Your task to perform on an android device: turn on showing notifications on the lock screen Image 0: 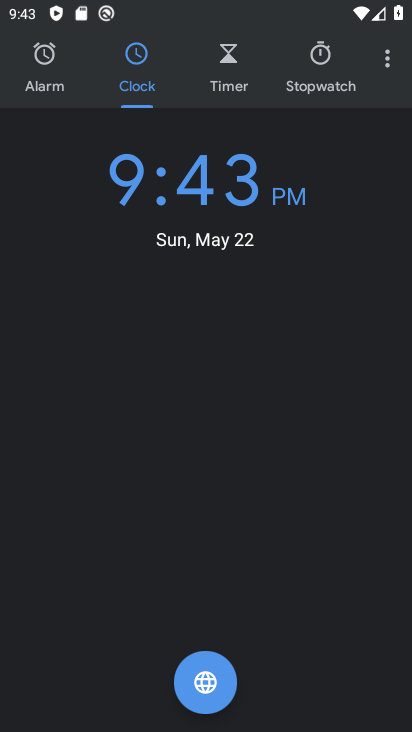
Step 0: press back button
Your task to perform on an android device: turn on showing notifications on the lock screen Image 1: 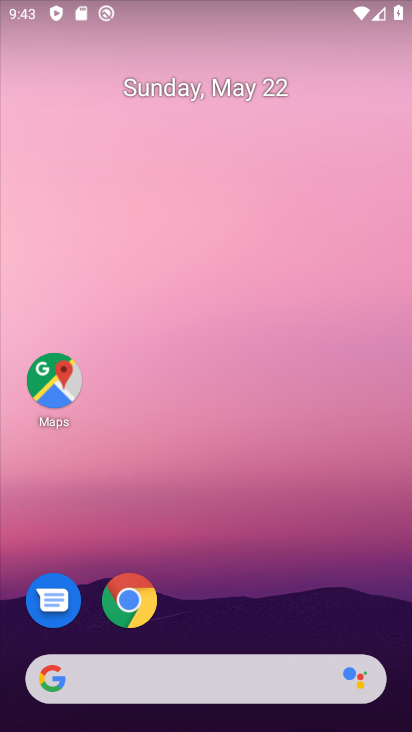
Step 1: drag from (232, 564) to (215, 43)
Your task to perform on an android device: turn on showing notifications on the lock screen Image 2: 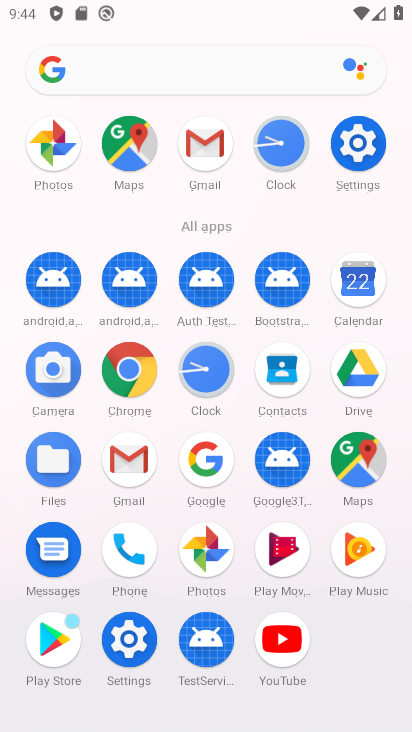
Step 2: click (357, 141)
Your task to perform on an android device: turn on showing notifications on the lock screen Image 3: 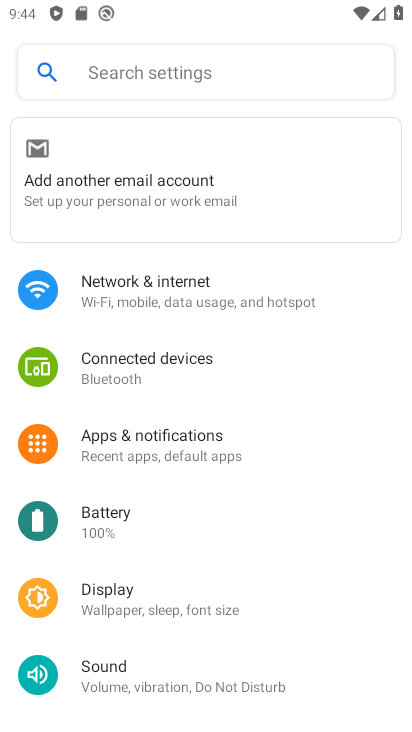
Step 3: click (156, 445)
Your task to perform on an android device: turn on showing notifications on the lock screen Image 4: 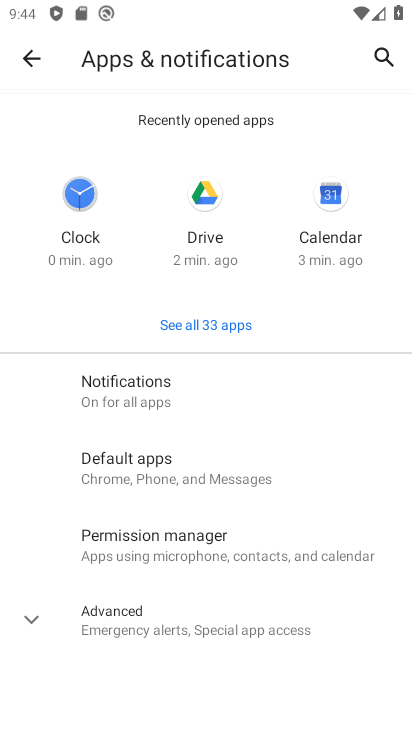
Step 4: click (123, 394)
Your task to perform on an android device: turn on showing notifications on the lock screen Image 5: 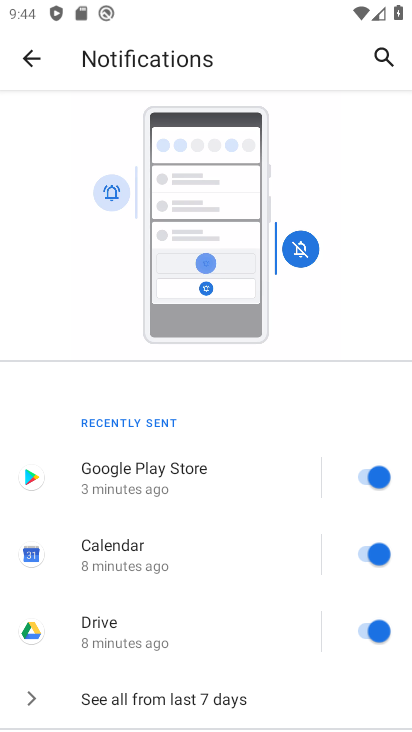
Step 5: drag from (132, 508) to (178, 386)
Your task to perform on an android device: turn on showing notifications on the lock screen Image 6: 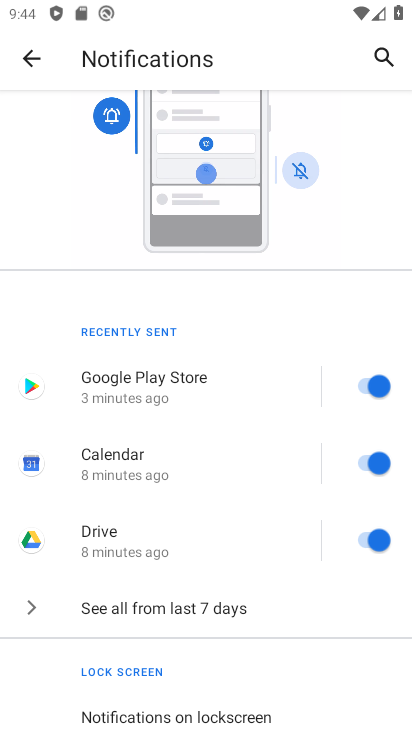
Step 6: drag from (128, 582) to (194, 458)
Your task to perform on an android device: turn on showing notifications on the lock screen Image 7: 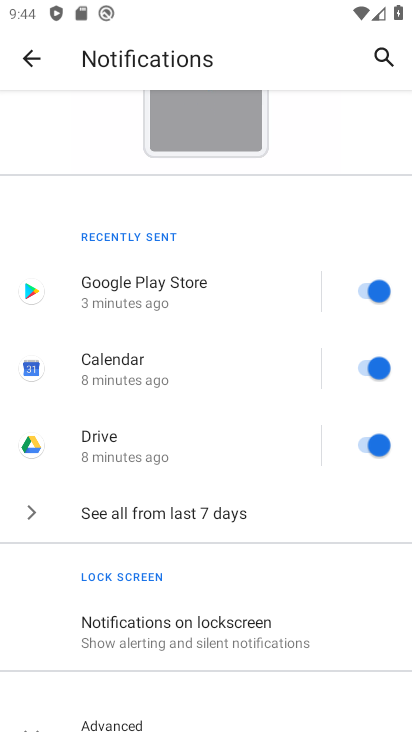
Step 7: click (163, 638)
Your task to perform on an android device: turn on showing notifications on the lock screen Image 8: 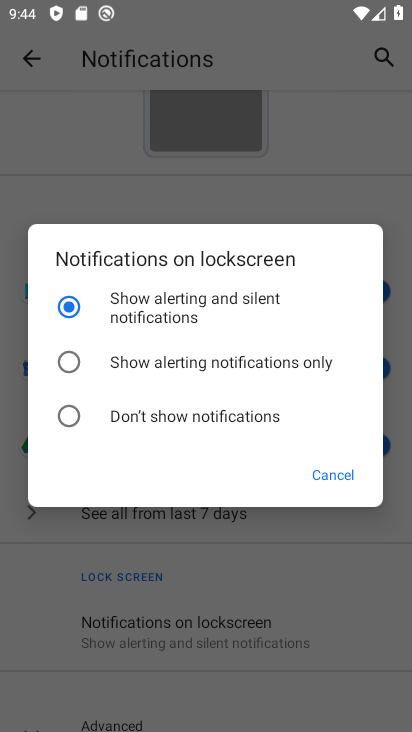
Step 8: click (73, 311)
Your task to perform on an android device: turn on showing notifications on the lock screen Image 9: 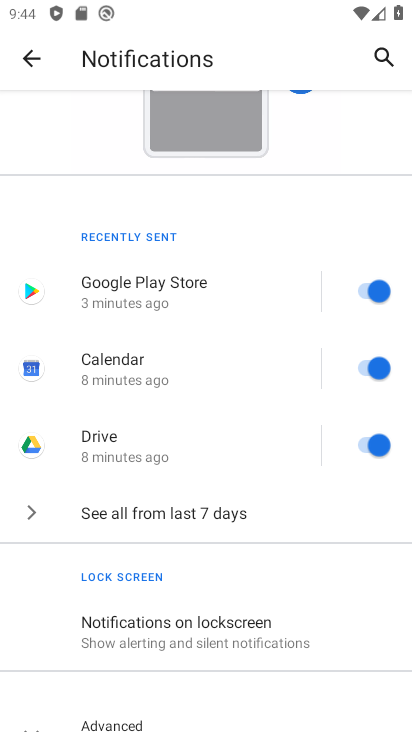
Step 9: task complete